Your task to perform on an android device: Go to Amazon Image 0: 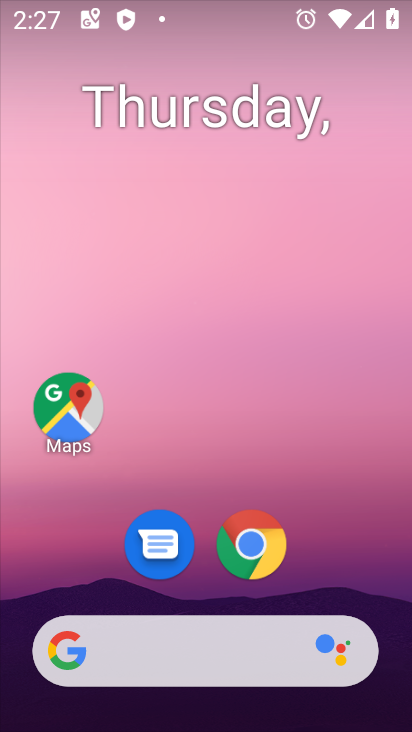
Step 0: click (272, 555)
Your task to perform on an android device: Go to Amazon Image 1: 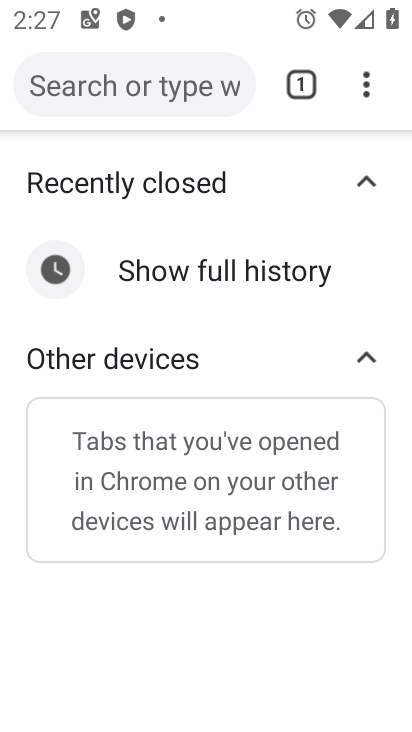
Step 1: click (307, 97)
Your task to perform on an android device: Go to Amazon Image 2: 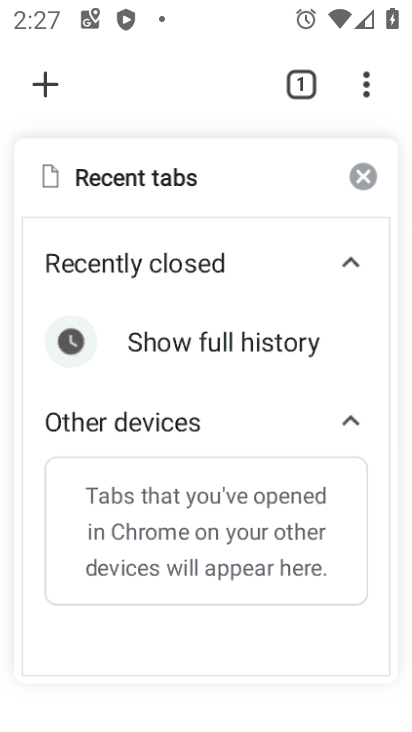
Step 2: click (59, 89)
Your task to perform on an android device: Go to Amazon Image 3: 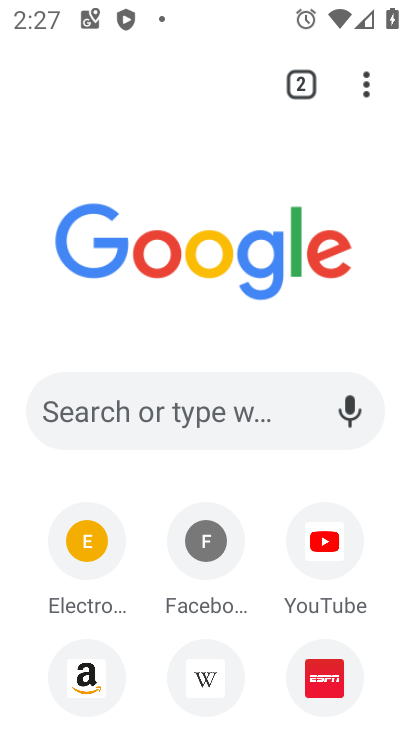
Step 3: click (95, 664)
Your task to perform on an android device: Go to Amazon Image 4: 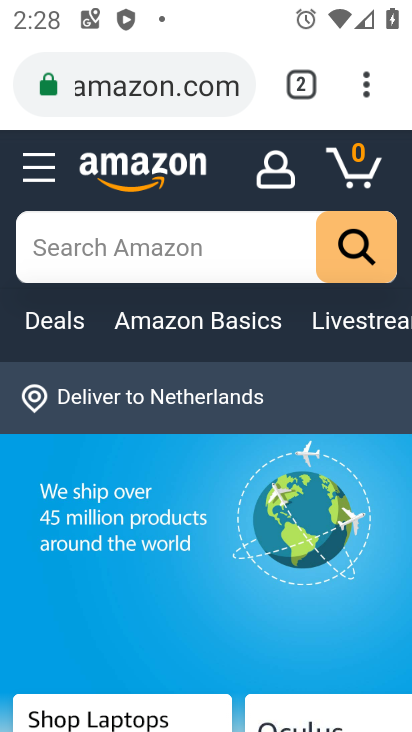
Step 4: task complete